Your task to perform on an android device: open wifi settings Image 0: 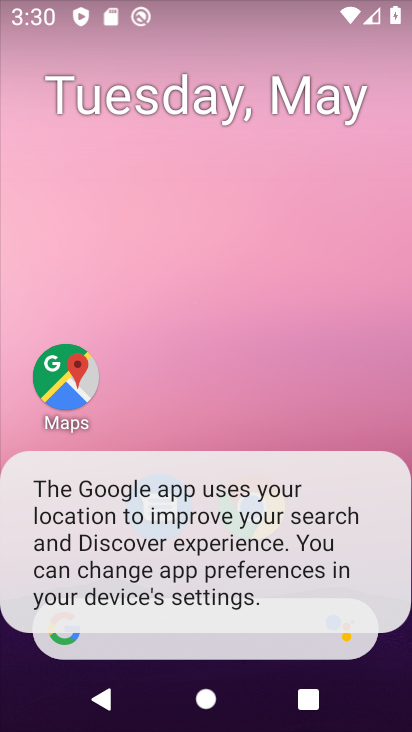
Step 0: drag from (325, 398) to (267, 18)
Your task to perform on an android device: open wifi settings Image 1: 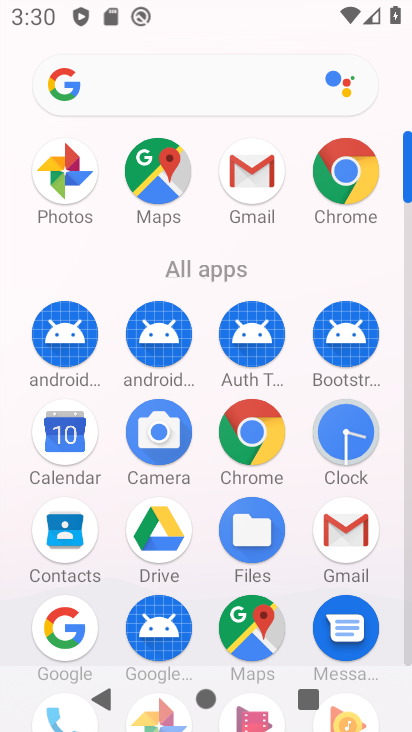
Step 1: drag from (396, 460) to (391, 192)
Your task to perform on an android device: open wifi settings Image 2: 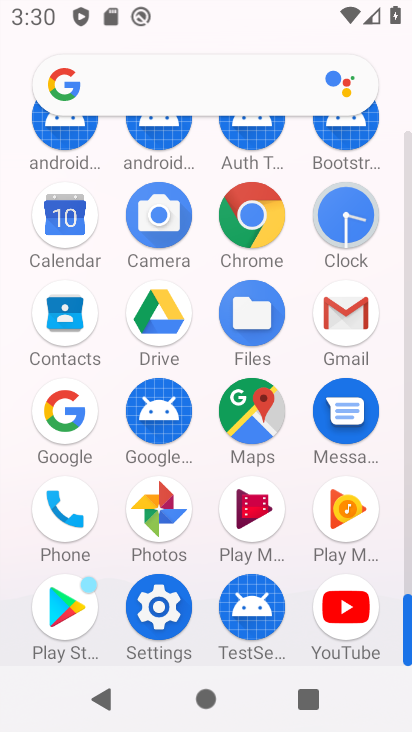
Step 2: click (181, 612)
Your task to perform on an android device: open wifi settings Image 3: 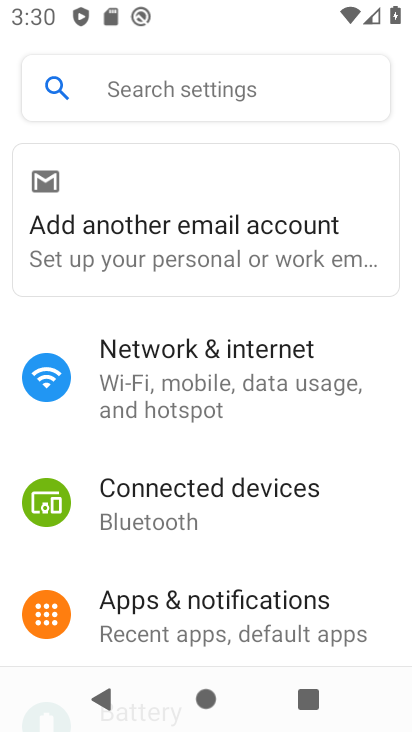
Step 3: click (109, 397)
Your task to perform on an android device: open wifi settings Image 4: 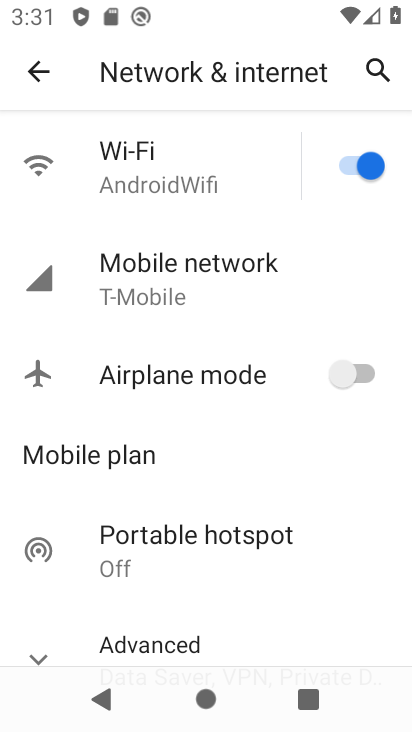
Step 4: click (231, 188)
Your task to perform on an android device: open wifi settings Image 5: 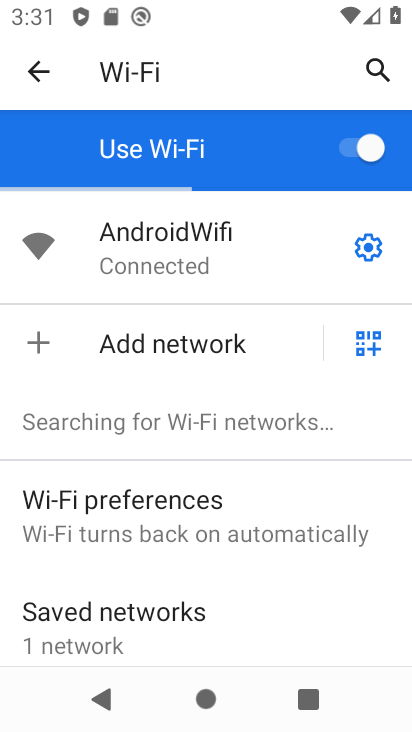
Step 5: task complete